Your task to perform on an android device: check the backup settings in the google photos Image 0: 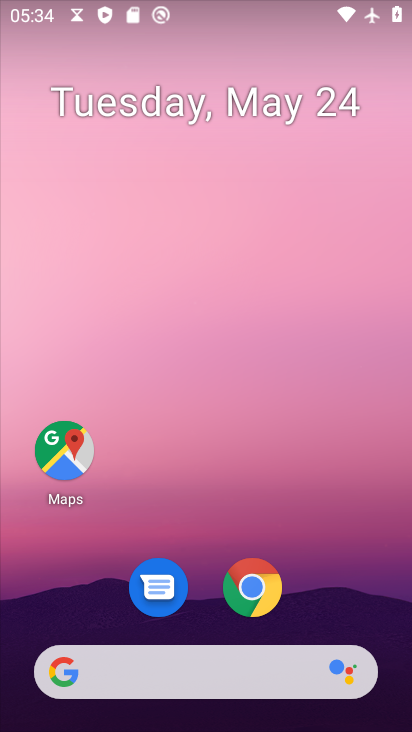
Step 0: drag from (358, 576) to (206, 12)
Your task to perform on an android device: check the backup settings in the google photos Image 1: 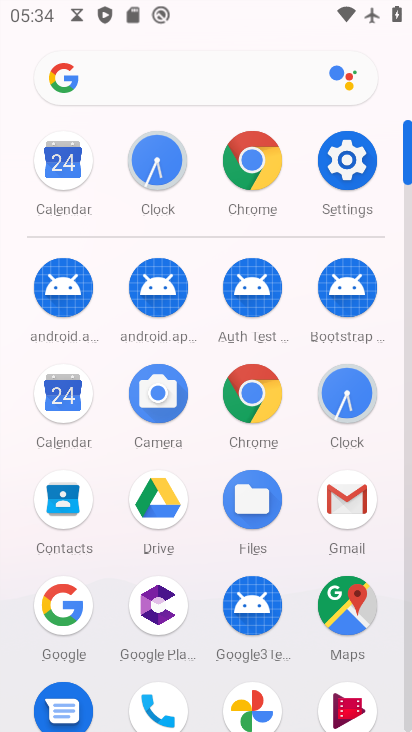
Step 1: click (259, 699)
Your task to perform on an android device: check the backup settings in the google photos Image 2: 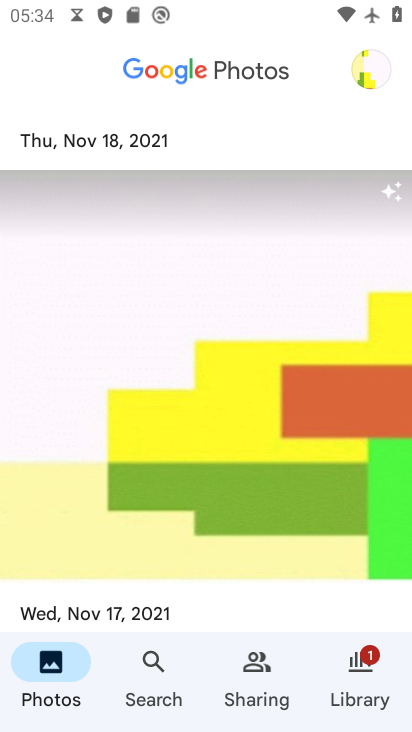
Step 2: click (365, 675)
Your task to perform on an android device: check the backup settings in the google photos Image 3: 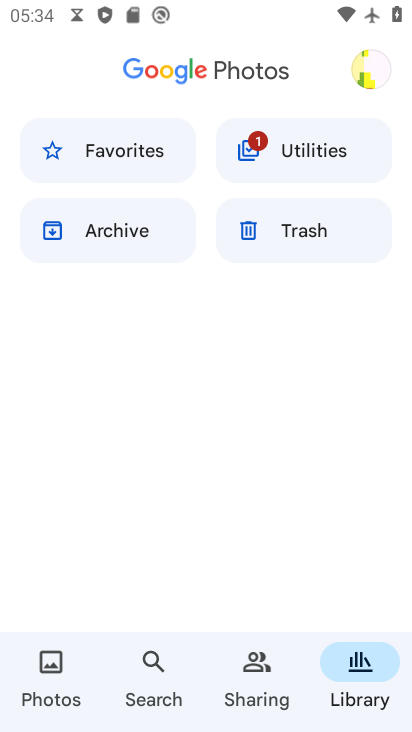
Step 3: click (352, 60)
Your task to perform on an android device: check the backup settings in the google photos Image 4: 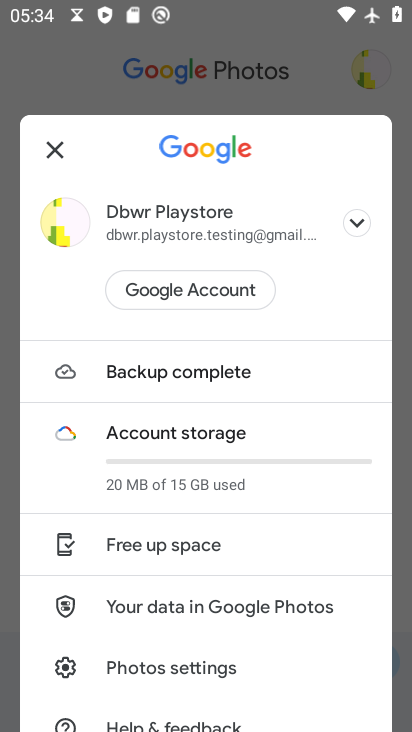
Step 4: drag from (224, 573) to (274, 69)
Your task to perform on an android device: check the backup settings in the google photos Image 5: 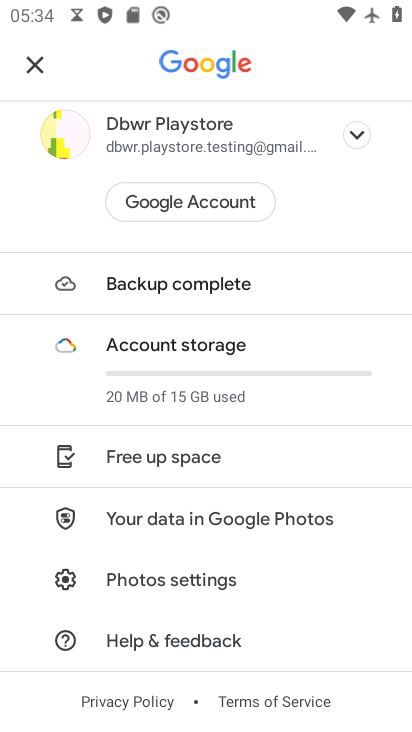
Step 5: click (205, 588)
Your task to perform on an android device: check the backup settings in the google photos Image 6: 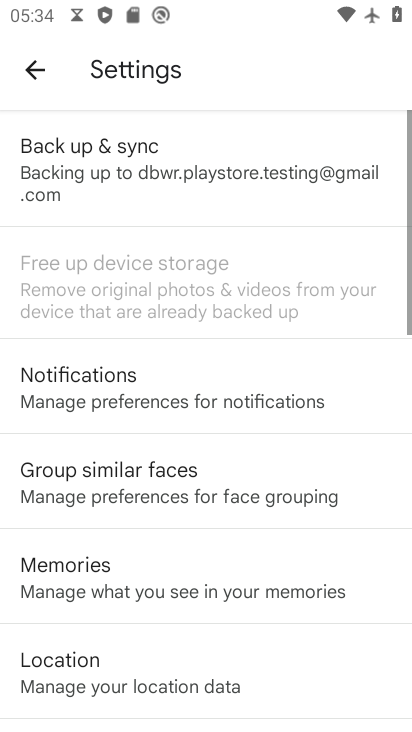
Step 6: click (158, 151)
Your task to perform on an android device: check the backup settings in the google photos Image 7: 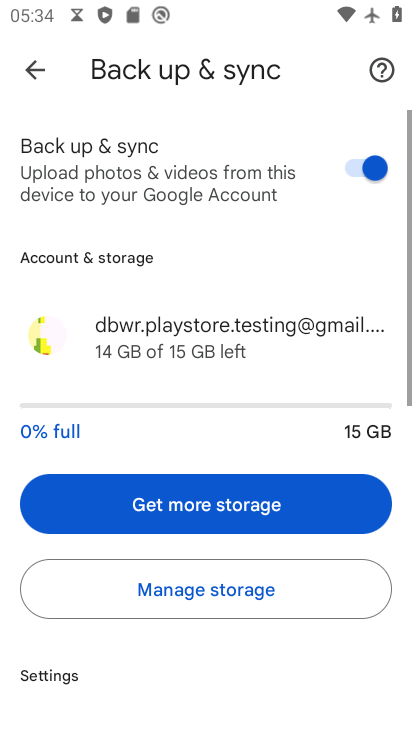
Step 7: task complete